Your task to perform on an android device: Find the nearest electronics store that's open today Image 0: 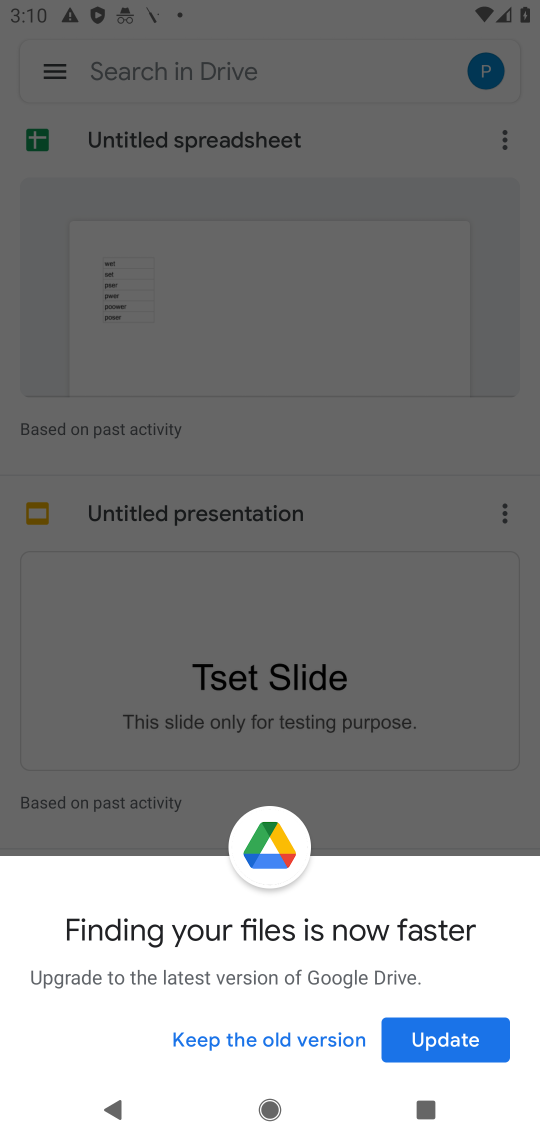
Step 0: press home button
Your task to perform on an android device: Find the nearest electronics store that's open today Image 1: 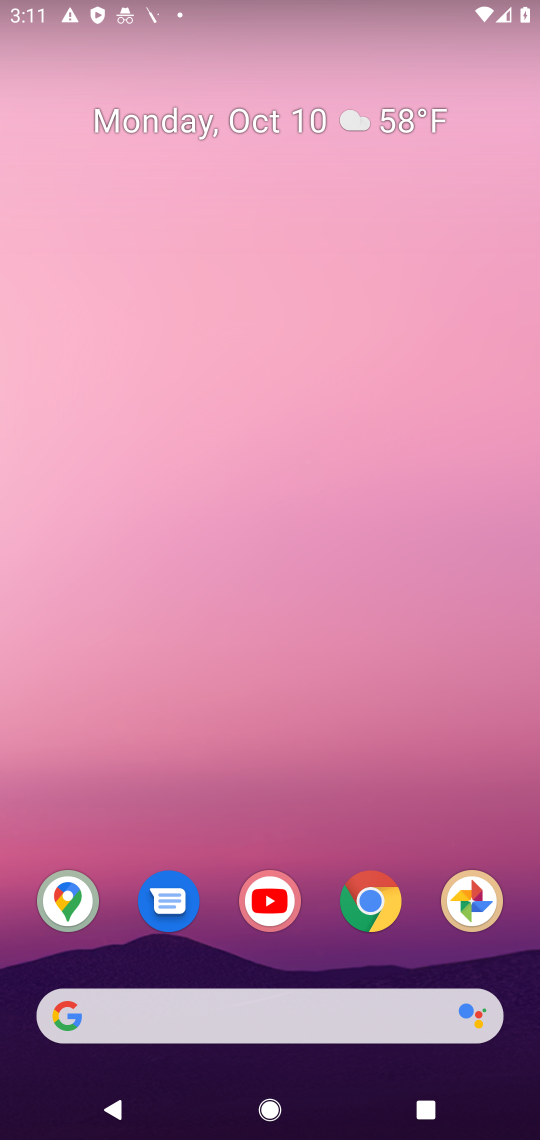
Step 1: drag from (265, 1018) to (351, 553)
Your task to perform on an android device: Find the nearest electronics store that's open today Image 2: 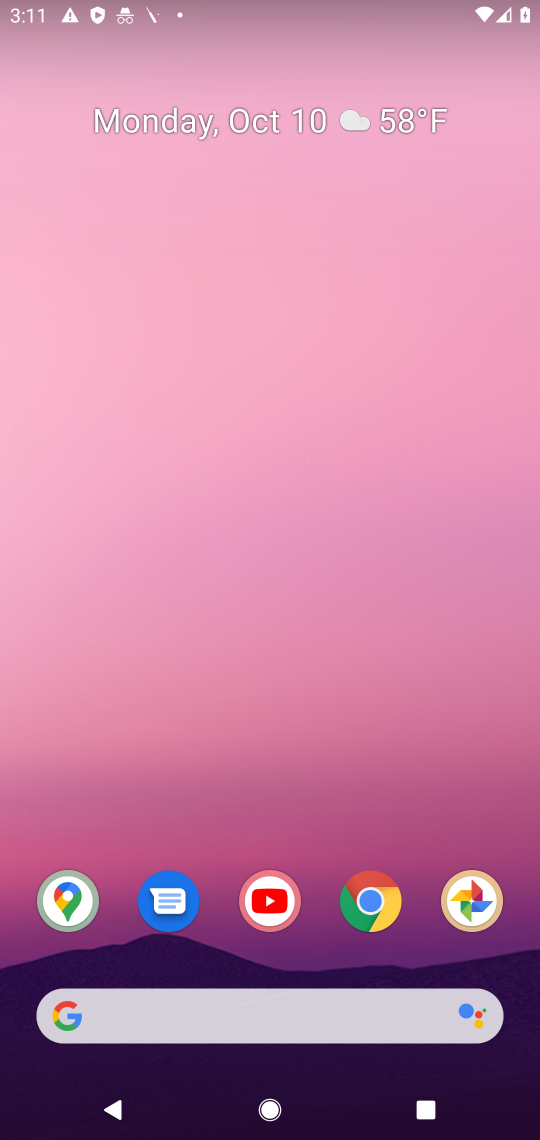
Step 2: drag from (286, 993) to (288, 537)
Your task to perform on an android device: Find the nearest electronics store that's open today Image 3: 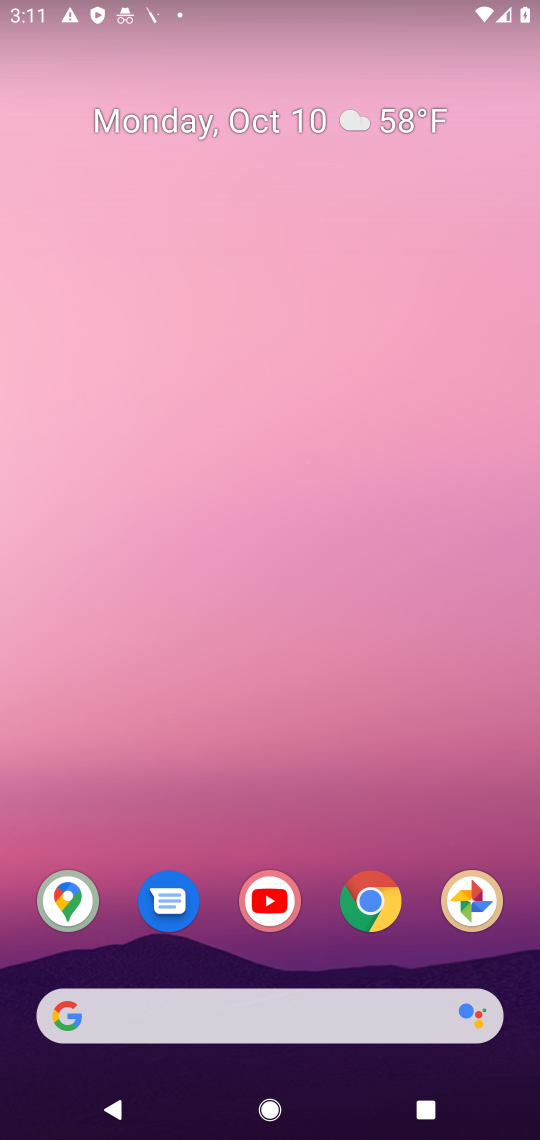
Step 3: drag from (308, 1036) to (344, 470)
Your task to perform on an android device: Find the nearest electronics store that's open today Image 4: 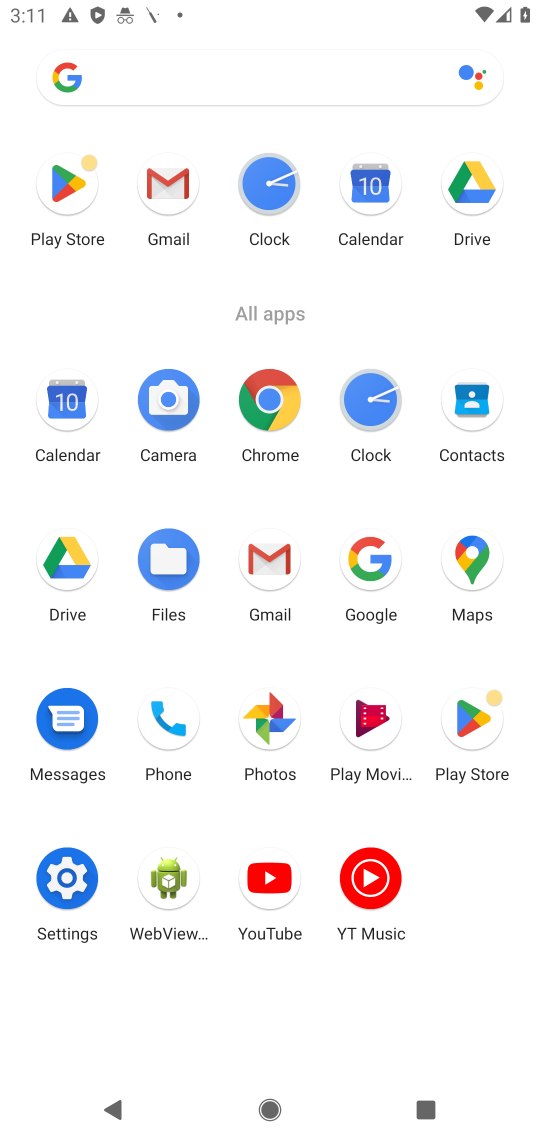
Step 4: click (380, 585)
Your task to perform on an android device: Find the nearest electronics store that's open today Image 5: 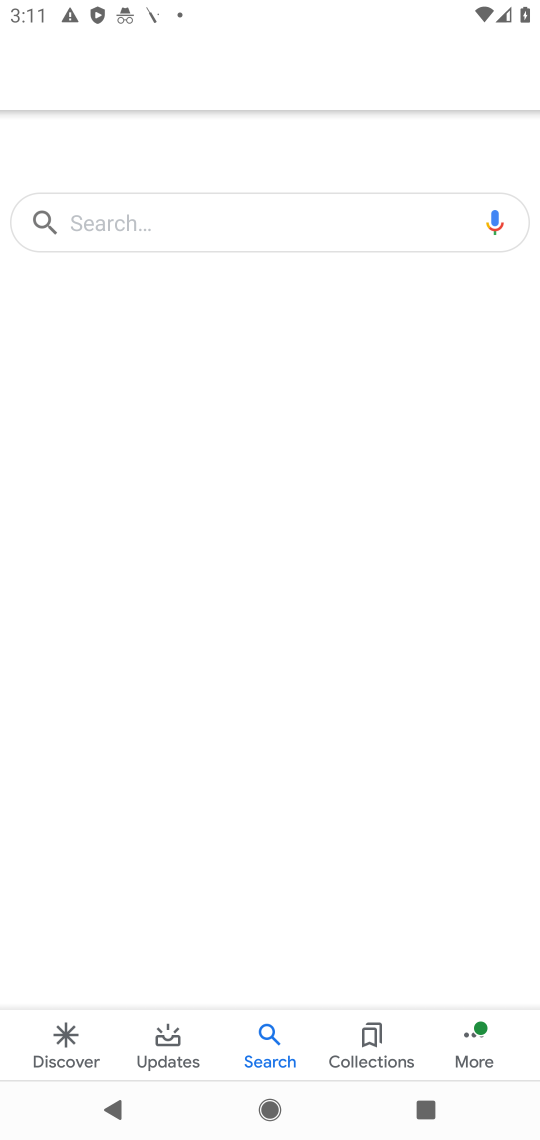
Step 5: click (332, 229)
Your task to perform on an android device: Find the nearest electronics store that's open today Image 6: 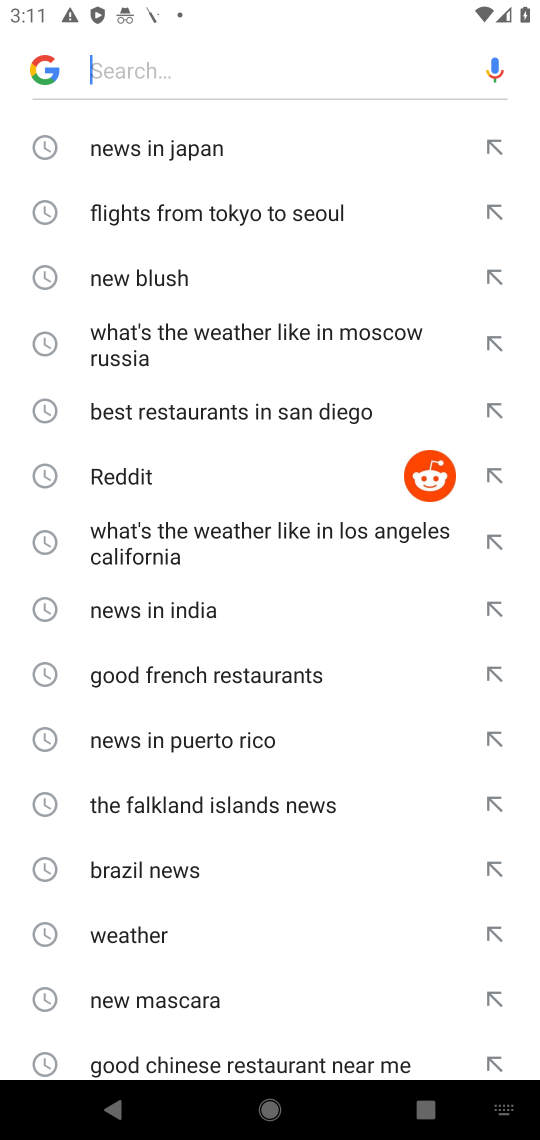
Step 6: type "nearest electronics store that's open today"
Your task to perform on an android device: Find the nearest electronics store that's open today Image 7: 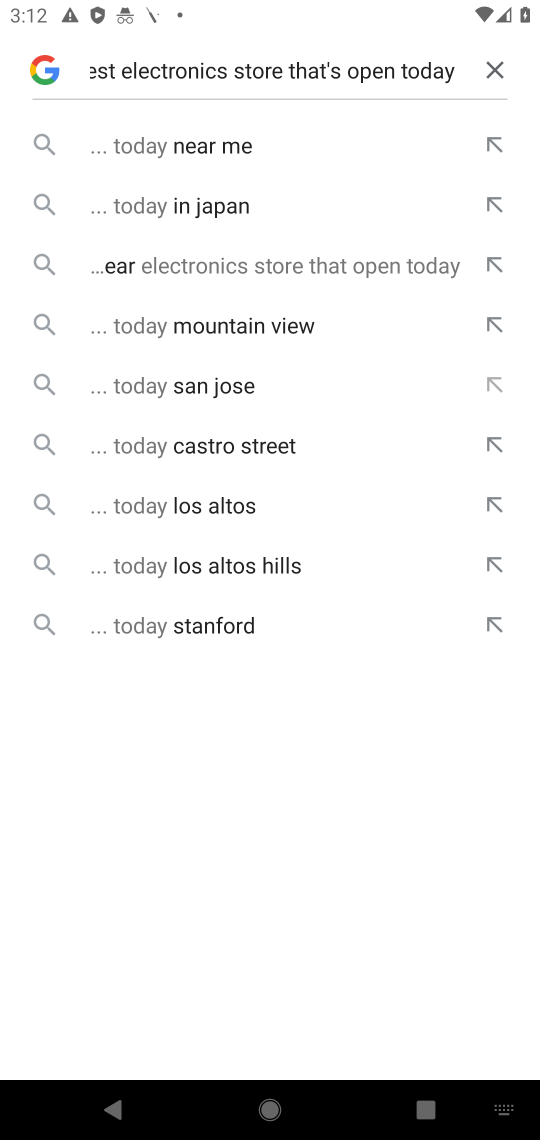
Step 7: click (231, 86)
Your task to perform on an android device: Find the nearest electronics store that's open today Image 8: 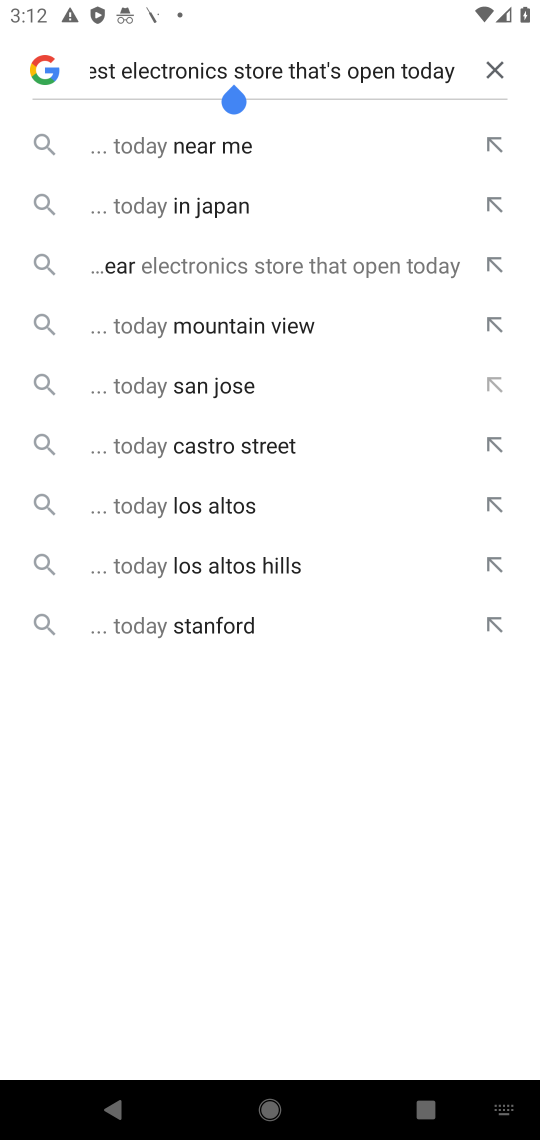
Step 8: click (259, 161)
Your task to perform on an android device: Find the nearest electronics store that's open today Image 9: 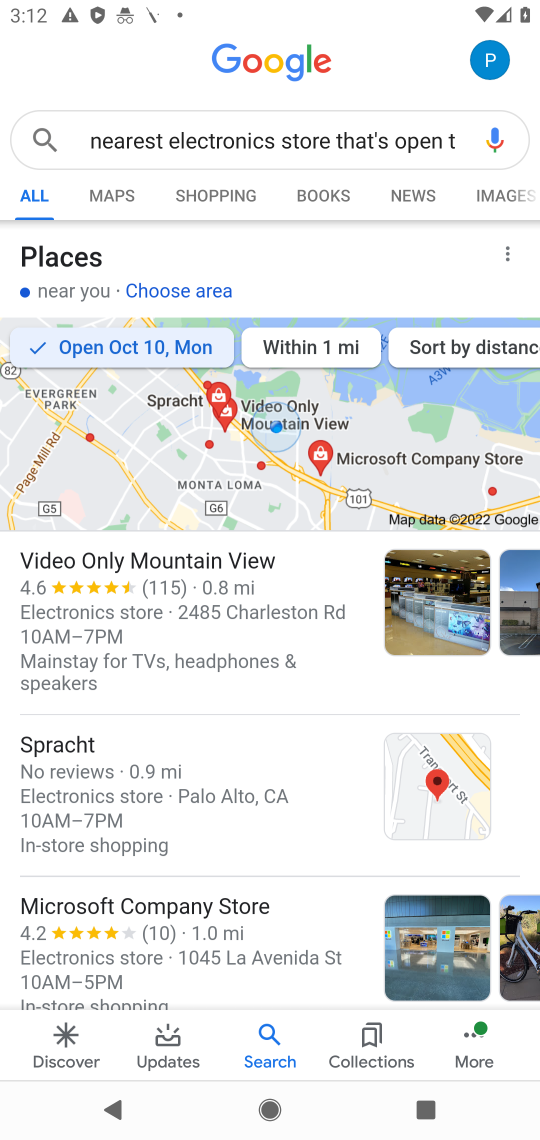
Step 9: task complete